Your task to perform on an android device: toggle location history Image 0: 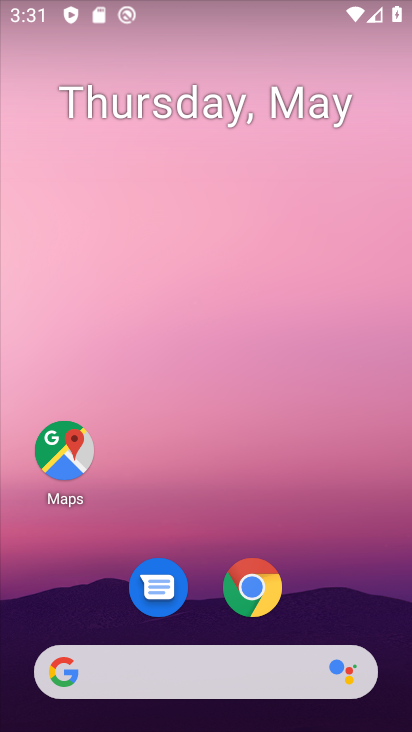
Step 0: drag from (376, 605) to (366, 144)
Your task to perform on an android device: toggle location history Image 1: 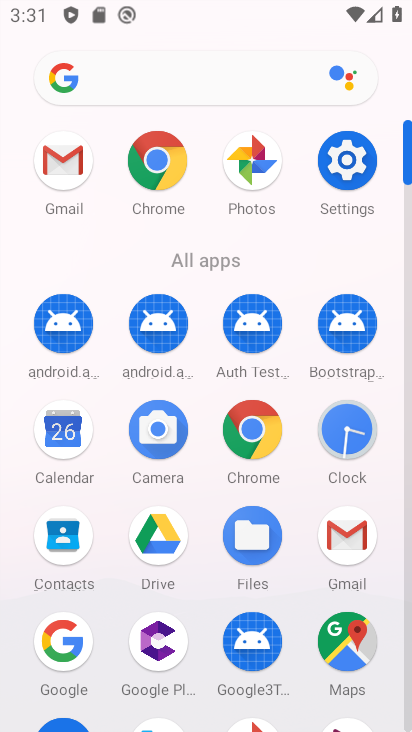
Step 1: click (351, 172)
Your task to perform on an android device: toggle location history Image 2: 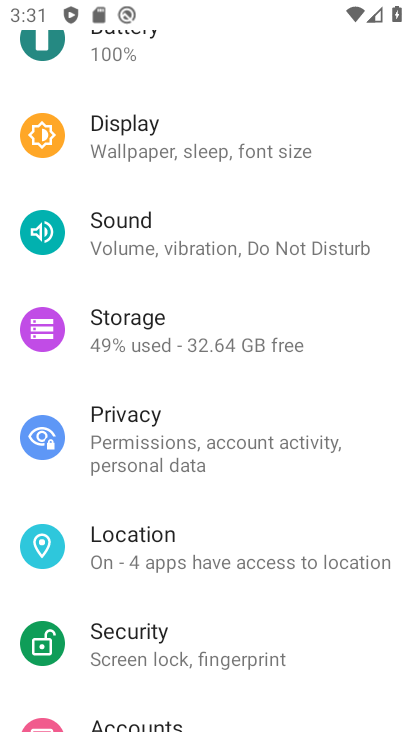
Step 2: drag from (353, 181) to (343, 393)
Your task to perform on an android device: toggle location history Image 3: 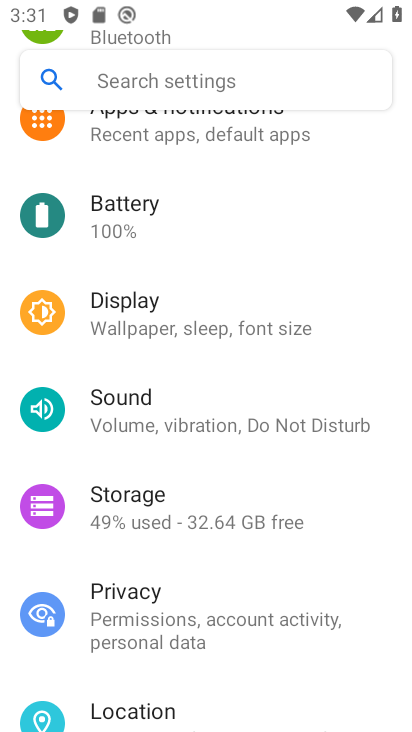
Step 3: drag from (344, 149) to (333, 376)
Your task to perform on an android device: toggle location history Image 4: 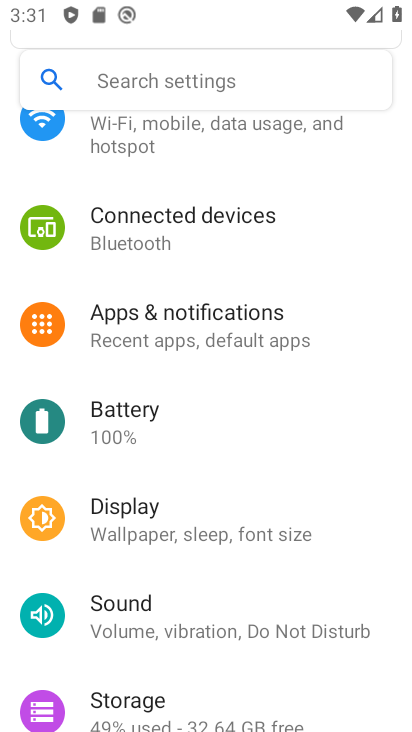
Step 4: drag from (336, 175) to (335, 372)
Your task to perform on an android device: toggle location history Image 5: 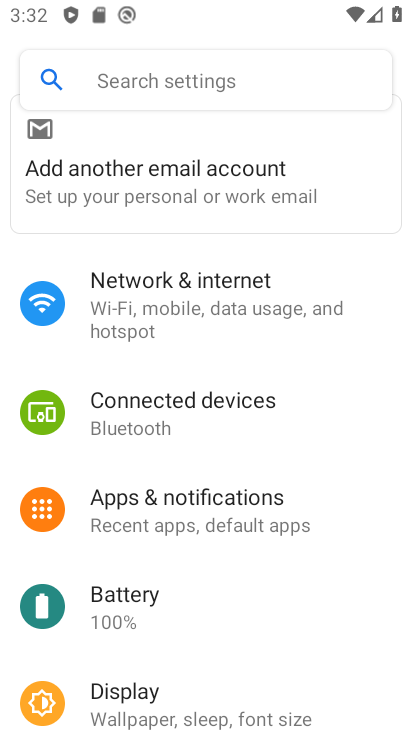
Step 5: drag from (346, 409) to (342, 255)
Your task to perform on an android device: toggle location history Image 6: 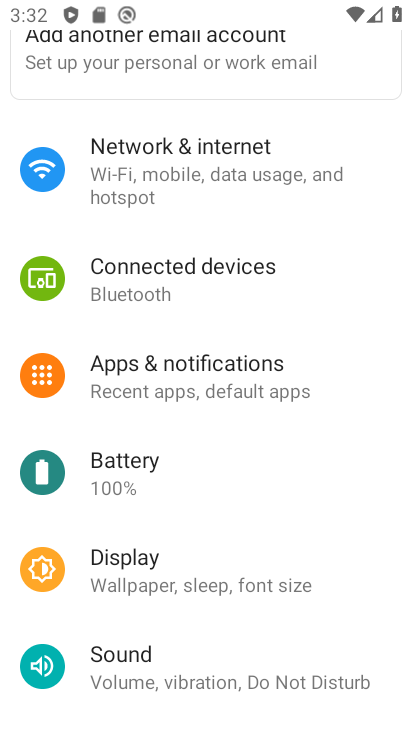
Step 6: drag from (341, 448) to (339, 313)
Your task to perform on an android device: toggle location history Image 7: 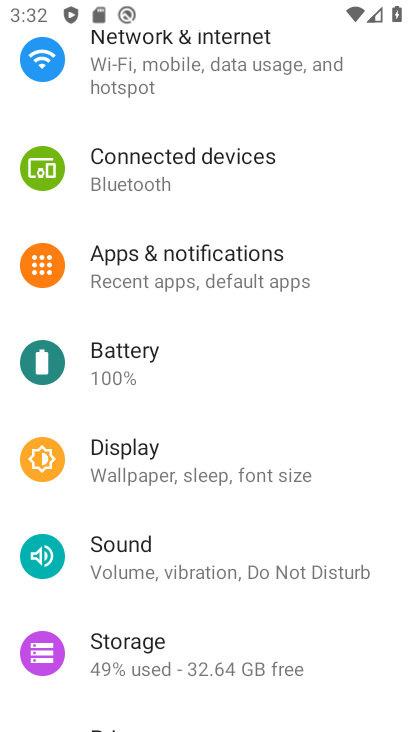
Step 7: drag from (340, 449) to (337, 297)
Your task to perform on an android device: toggle location history Image 8: 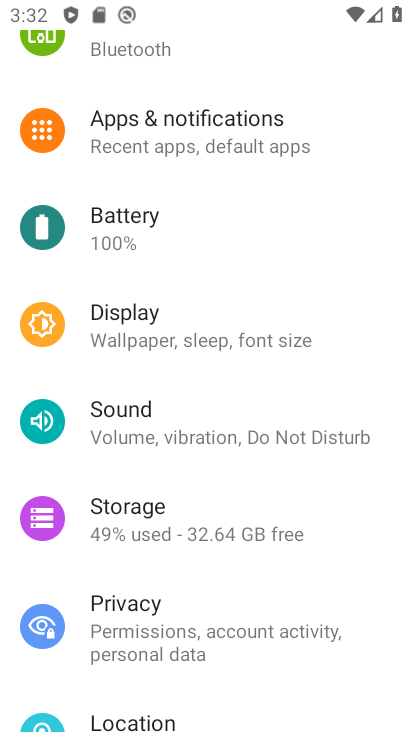
Step 8: drag from (343, 504) to (342, 351)
Your task to perform on an android device: toggle location history Image 9: 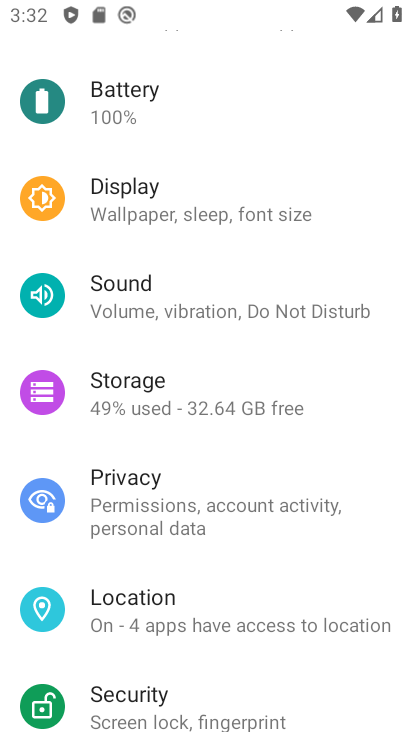
Step 9: drag from (364, 551) to (368, 392)
Your task to perform on an android device: toggle location history Image 10: 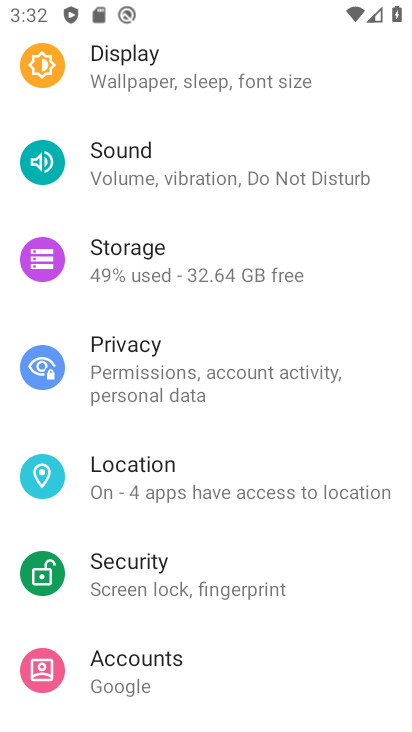
Step 10: drag from (356, 583) to (342, 427)
Your task to perform on an android device: toggle location history Image 11: 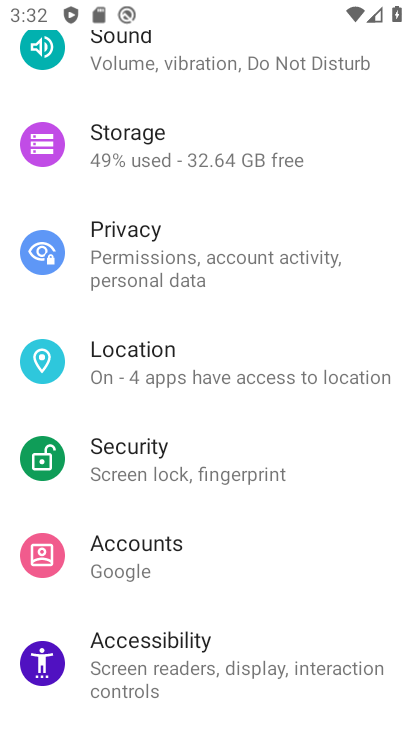
Step 11: click (304, 372)
Your task to perform on an android device: toggle location history Image 12: 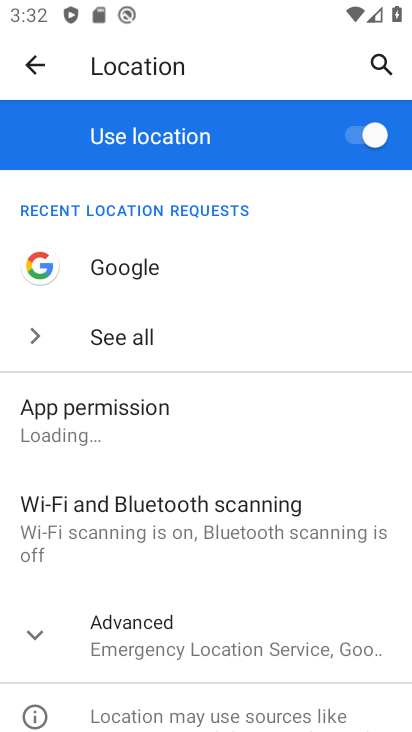
Step 12: drag from (334, 582) to (333, 400)
Your task to perform on an android device: toggle location history Image 13: 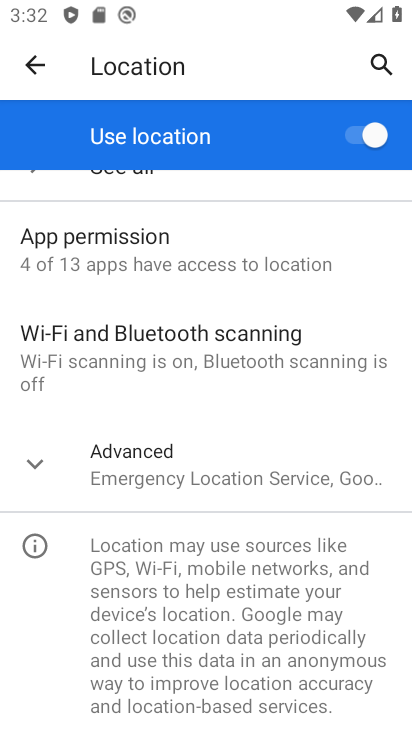
Step 13: click (312, 465)
Your task to perform on an android device: toggle location history Image 14: 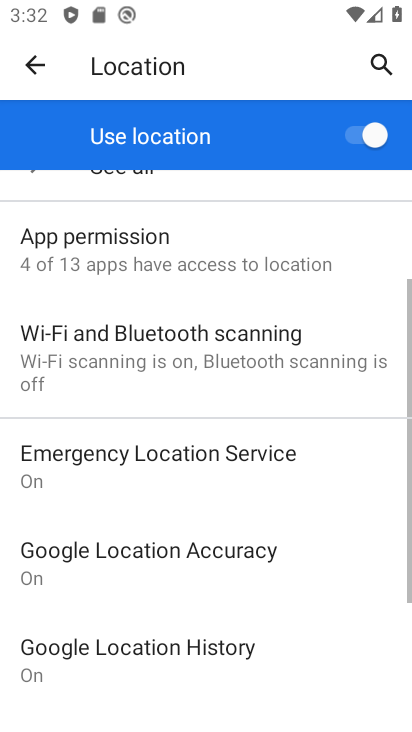
Step 14: drag from (308, 607) to (322, 461)
Your task to perform on an android device: toggle location history Image 15: 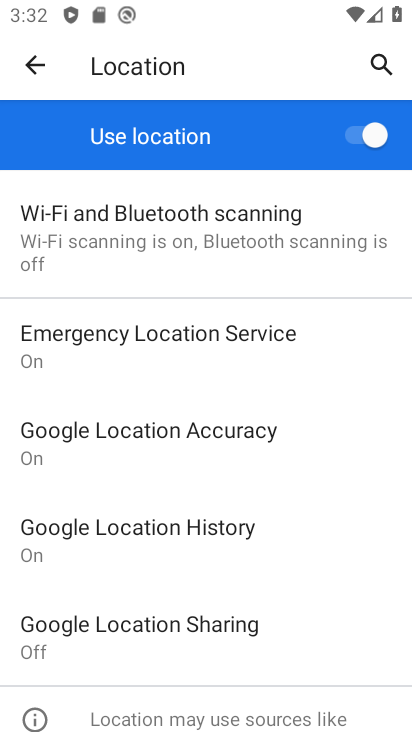
Step 15: drag from (339, 633) to (339, 497)
Your task to perform on an android device: toggle location history Image 16: 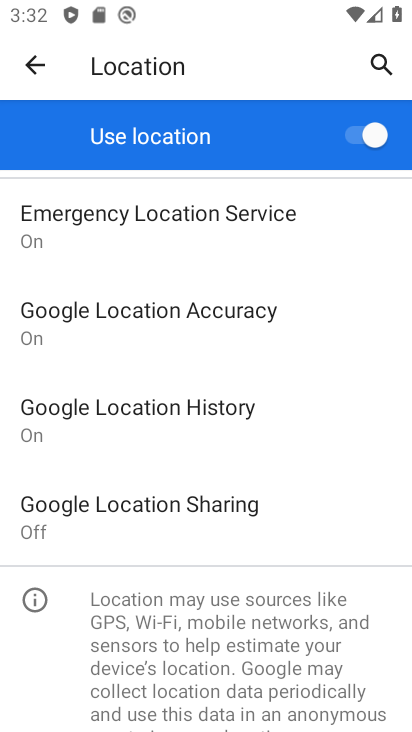
Step 16: click (159, 427)
Your task to perform on an android device: toggle location history Image 17: 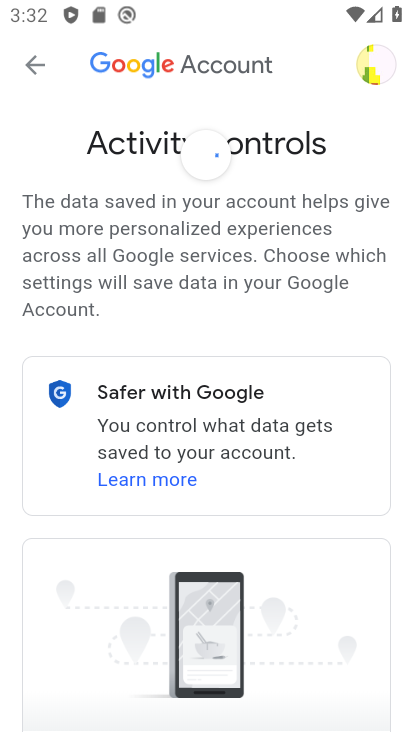
Step 17: drag from (322, 532) to (320, 378)
Your task to perform on an android device: toggle location history Image 18: 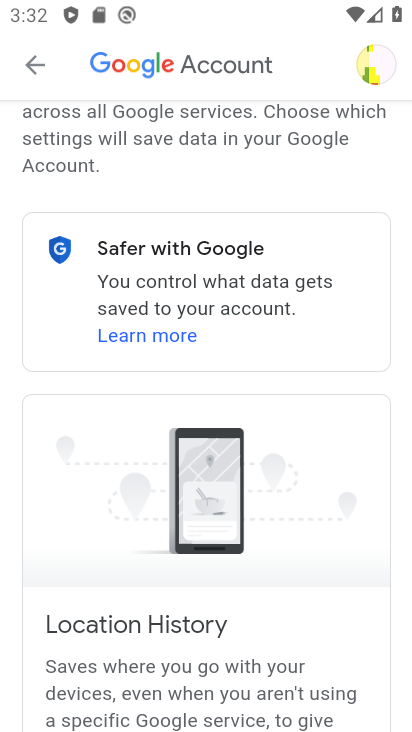
Step 18: drag from (326, 568) to (322, 429)
Your task to perform on an android device: toggle location history Image 19: 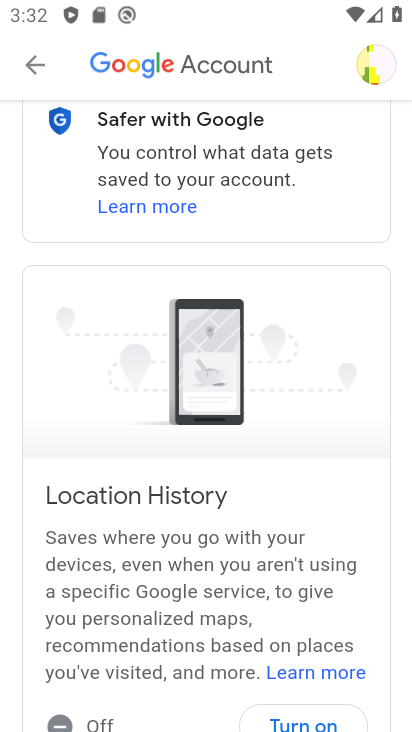
Step 19: drag from (299, 613) to (310, 435)
Your task to perform on an android device: toggle location history Image 20: 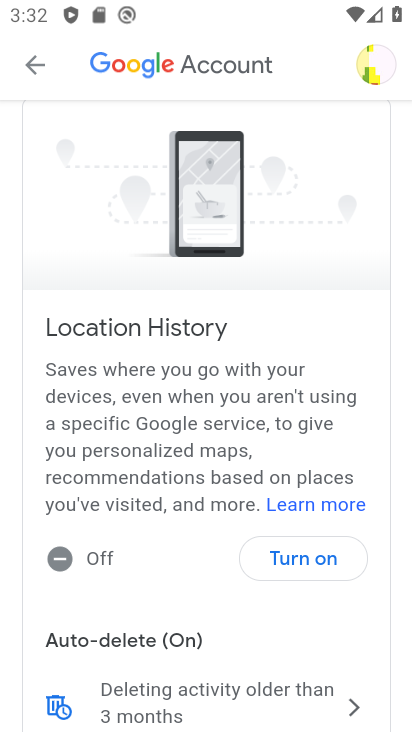
Step 20: click (307, 541)
Your task to perform on an android device: toggle location history Image 21: 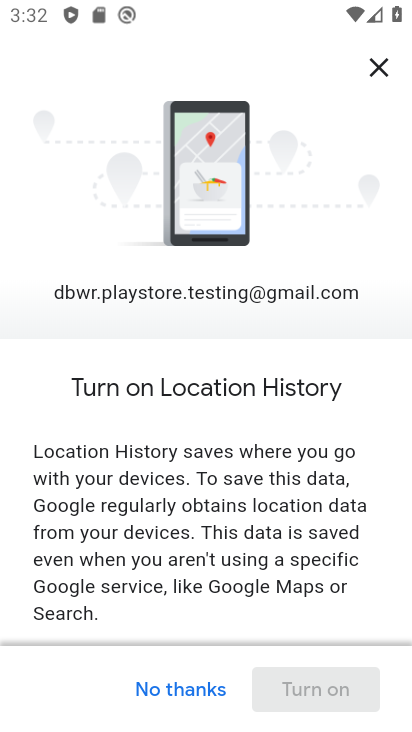
Step 21: drag from (238, 577) to (252, 470)
Your task to perform on an android device: toggle location history Image 22: 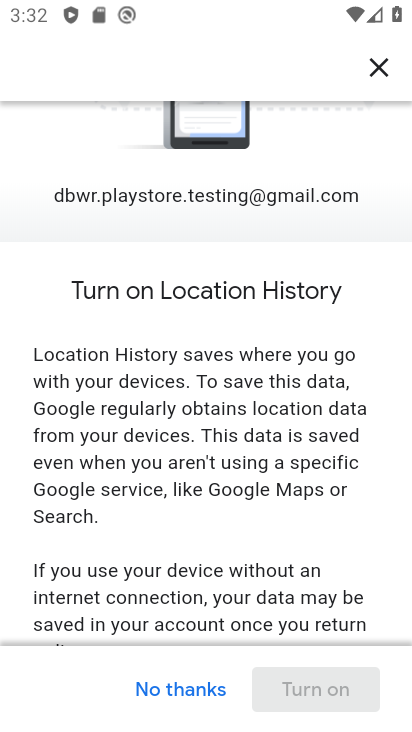
Step 22: drag from (257, 596) to (257, 491)
Your task to perform on an android device: toggle location history Image 23: 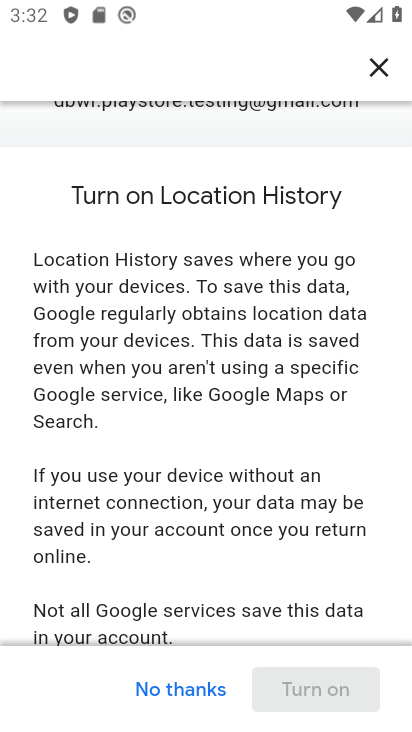
Step 23: drag from (256, 590) to (255, 490)
Your task to perform on an android device: toggle location history Image 24: 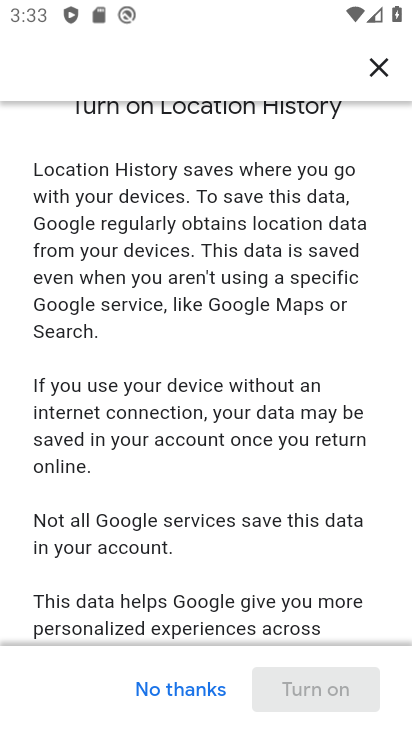
Step 24: drag from (270, 594) to (282, 414)
Your task to perform on an android device: toggle location history Image 25: 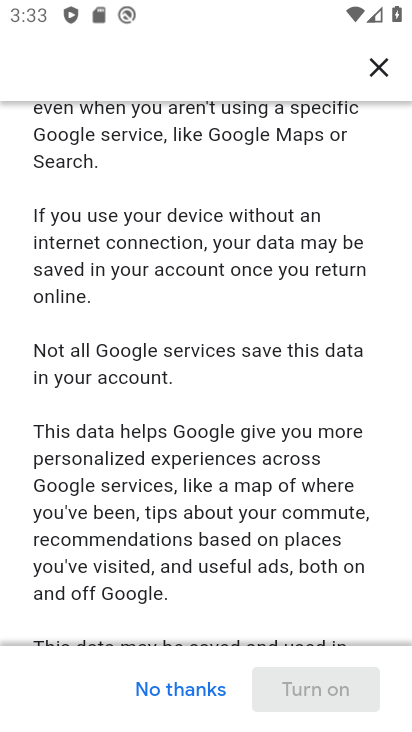
Step 25: drag from (288, 603) to (288, 438)
Your task to perform on an android device: toggle location history Image 26: 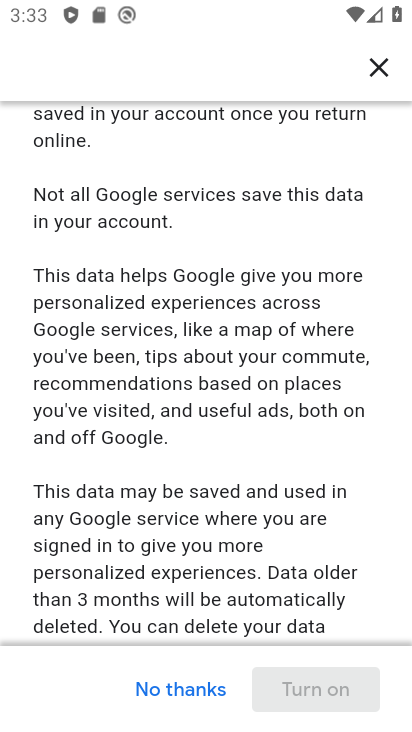
Step 26: drag from (303, 499) to (302, 363)
Your task to perform on an android device: toggle location history Image 27: 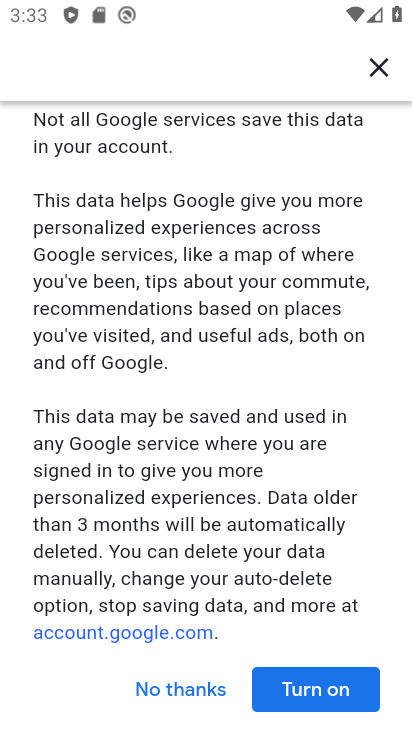
Step 27: click (321, 700)
Your task to perform on an android device: toggle location history Image 28: 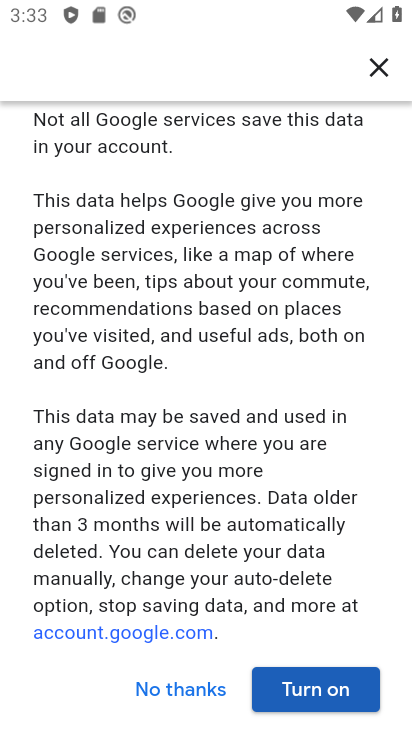
Step 28: click (328, 690)
Your task to perform on an android device: toggle location history Image 29: 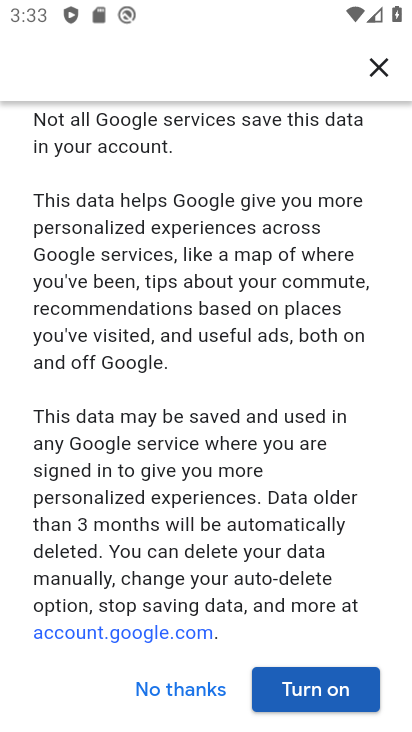
Step 29: click (308, 686)
Your task to perform on an android device: toggle location history Image 30: 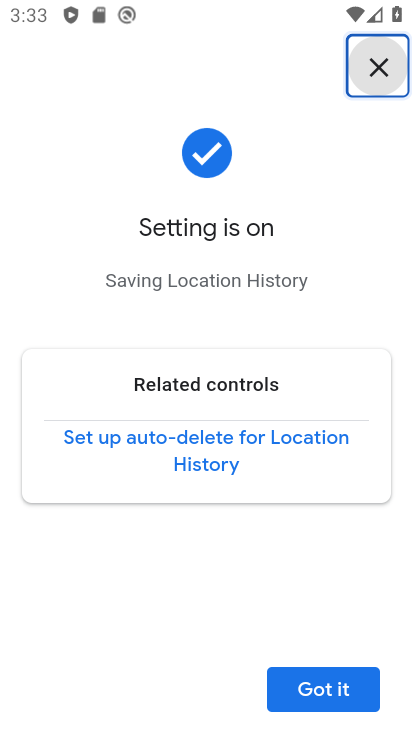
Step 30: task complete